Your task to perform on an android device: Show me the alarms in the clock app Image 0: 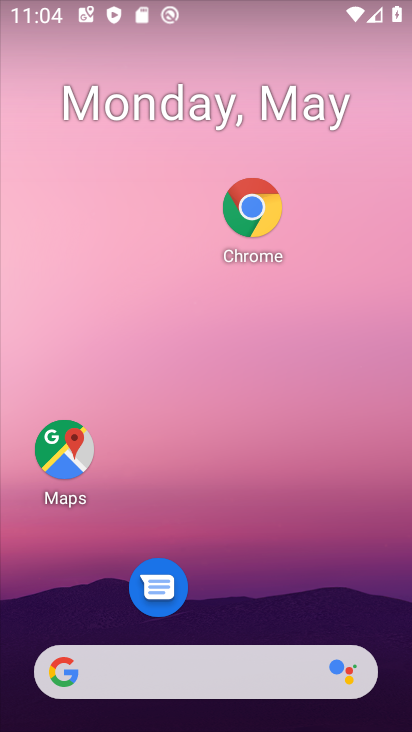
Step 0: drag from (329, 651) to (315, 162)
Your task to perform on an android device: Show me the alarms in the clock app Image 1: 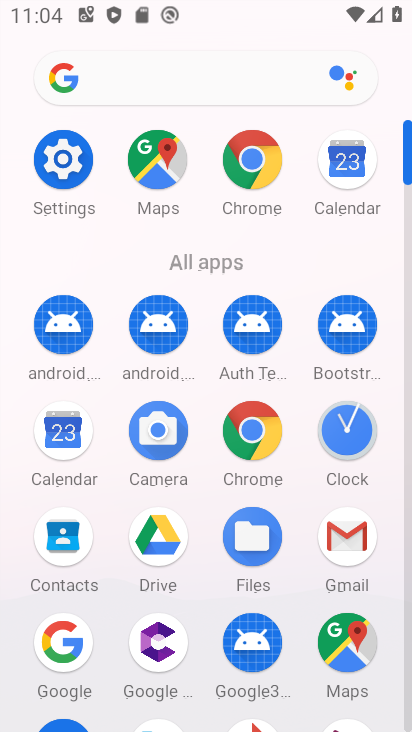
Step 1: click (345, 417)
Your task to perform on an android device: Show me the alarms in the clock app Image 2: 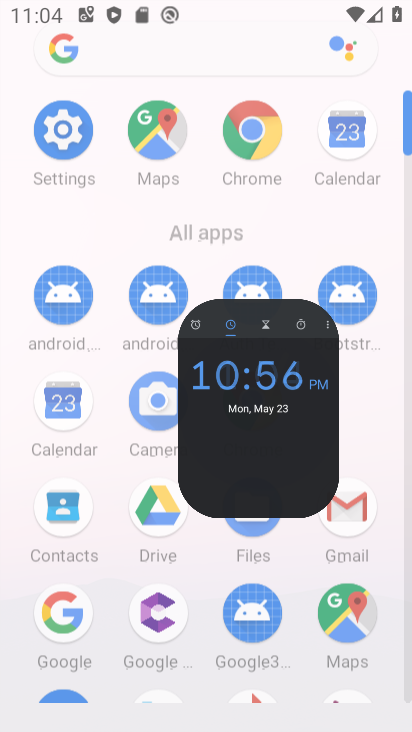
Step 2: click (346, 416)
Your task to perform on an android device: Show me the alarms in the clock app Image 3: 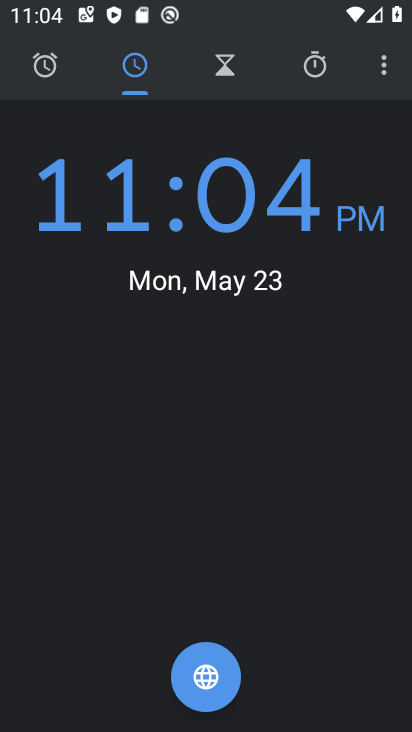
Step 3: click (60, 57)
Your task to perform on an android device: Show me the alarms in the clock app Image 4: 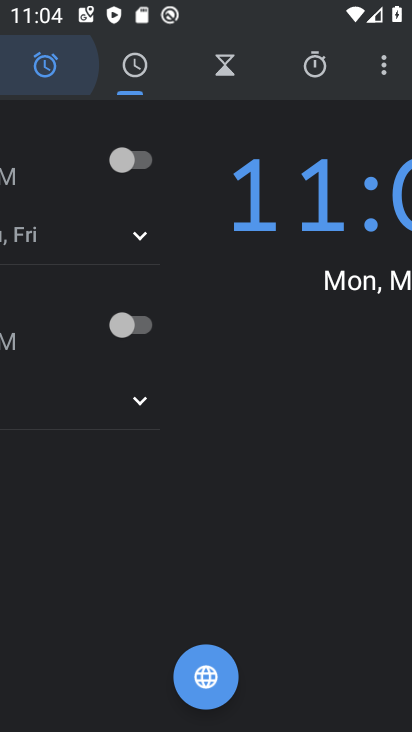
Step 4: click (47, 79)
Your task to perform on an android device: Show me the alarms in the clock app Image 5: 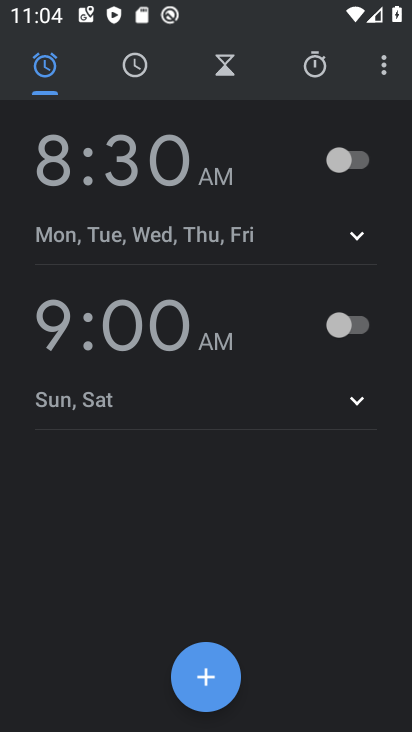
Step 5: task complete